Your task to perform on an android device: turn off javascript in the chrome app Image 0: 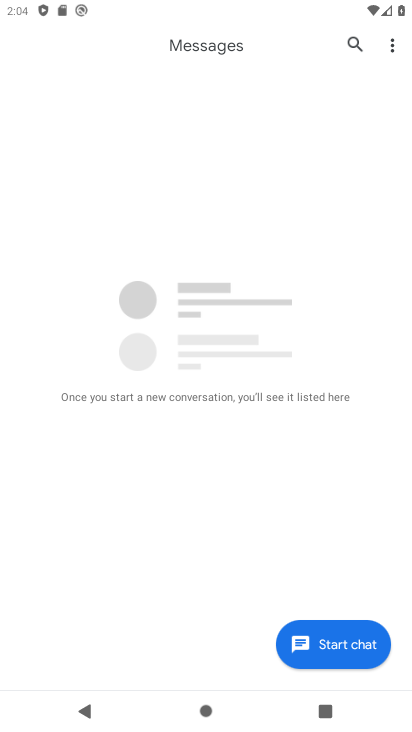
Step 0: press home button
Your task to perform on an android device: turn off javascript in the chrome app Image 1: 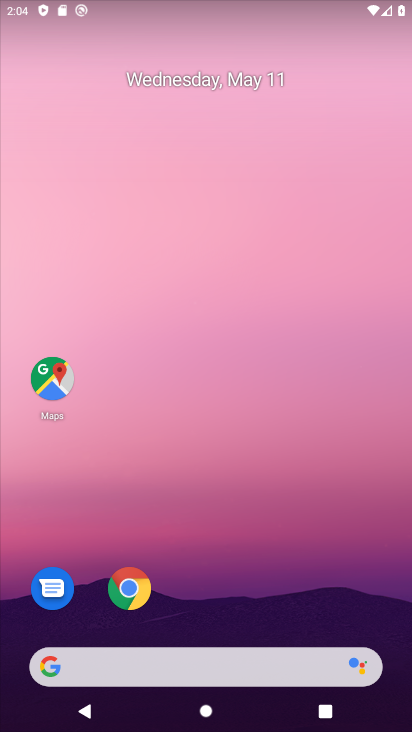
Step 1: click (122, 583)
Your task to perform on an android device: turn off javascript in the chrome app Image 2: 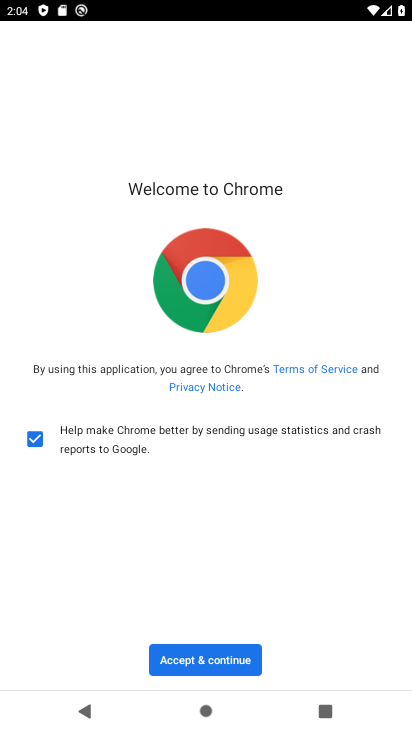
Step 2: click (164, 657)
Your task to perform on an android device: turn off javascript in the chrome app Image 3: 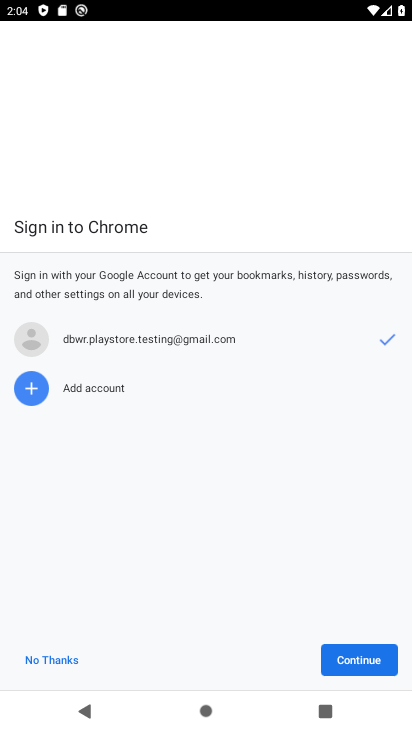
Step 3: click (164, 657)
Your task to perform on an android device: turn off javascript in the chrome app Image 4: 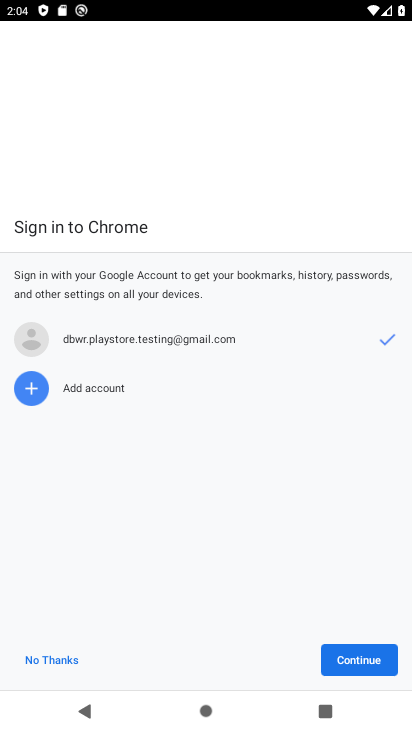
Step 4: click (334, 667)
Your task to perform on an android device: turn off javascript in the chrome app Image 5: 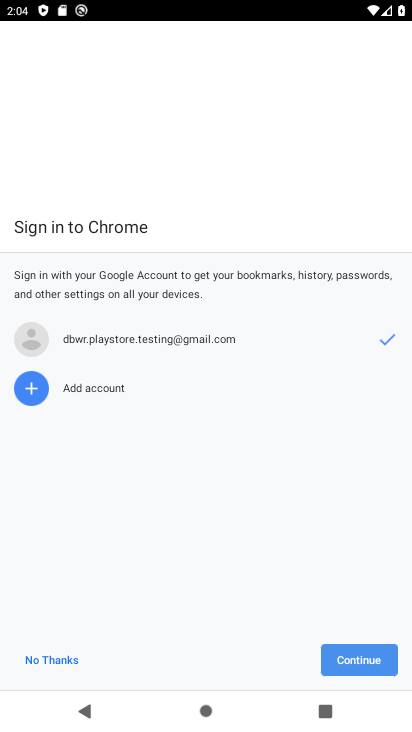
Step 5: click (334, 667)
Your task to perform on an android device: turn off javascript in the chrome app Image 6: 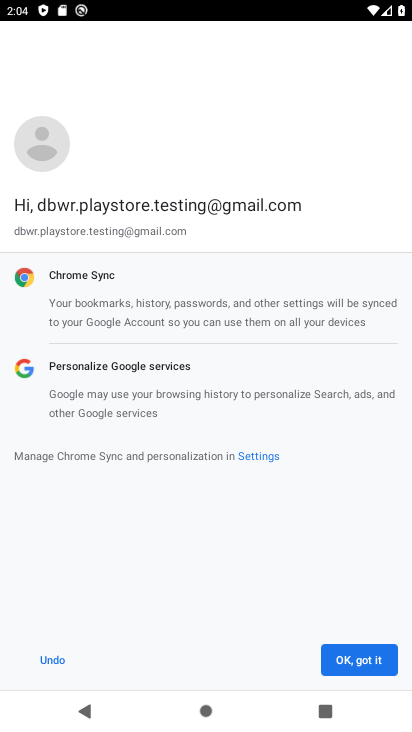
Step 6: click (334, 667)
Your task to perform on an android device: turn off javascript in the chrome app Image 7: 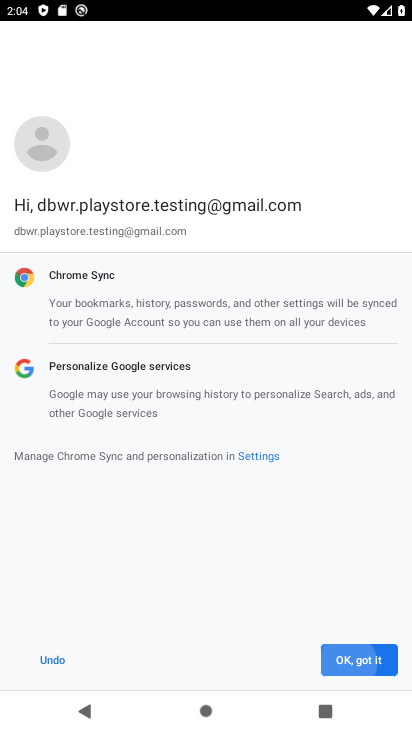
Step 7: click (335, 667)
Your task to perform on an android device: turn off javascript in the chrome app Image 8: 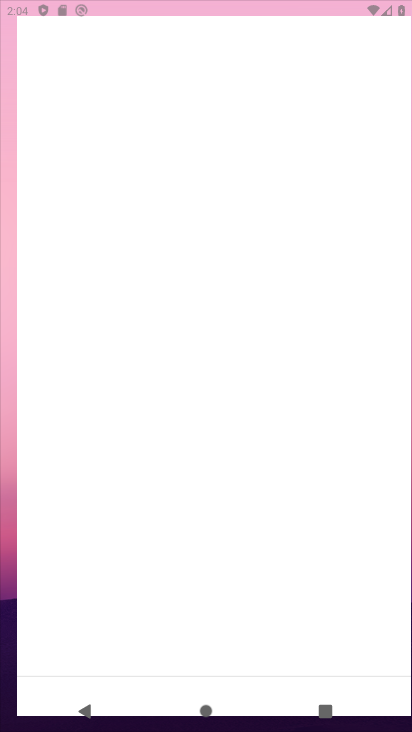
Step 8: click (343, 667)
Your task to perform on an android device: turn off javascript in the chrome app Image 9: 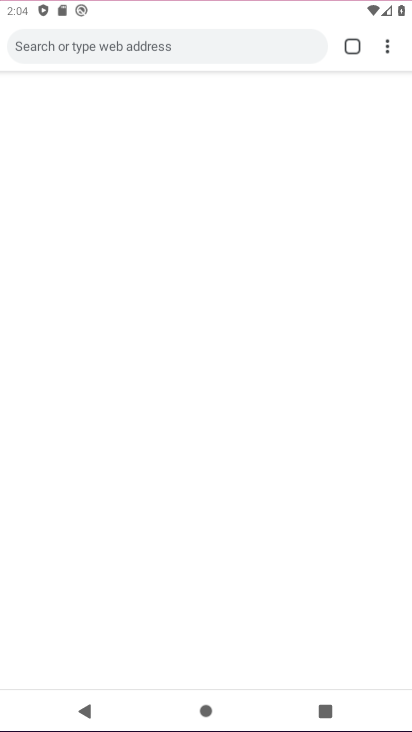
Step 9: click (343, 667)
Your task to perform on an android device: turn off javascript in the chrome app Image 10: 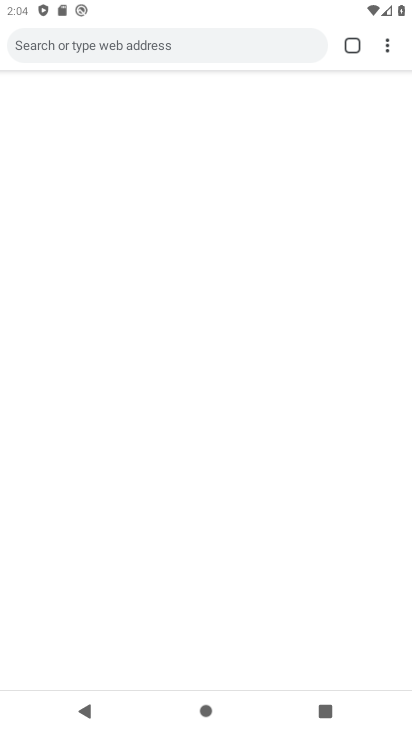
Step 10: click (343, 667)
Your task to perform on an android device: turn off javascript in the chrome app Image 11: 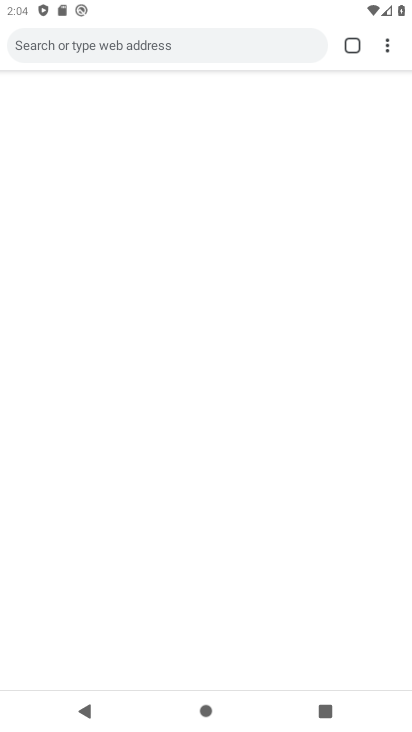
Step 11: click (343, 667)
Your task to perform on an android device: turn off javascript in the chrome app Image 12: 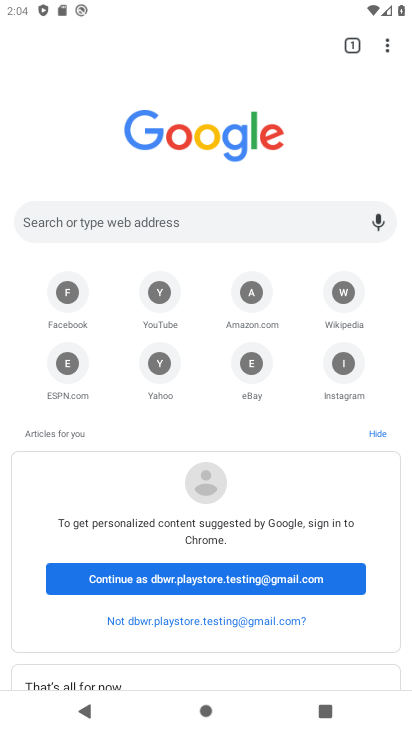
Step 12: click (343, 667)
Your task to perform on an android device: turn off javascript in the chrome app Image 13: 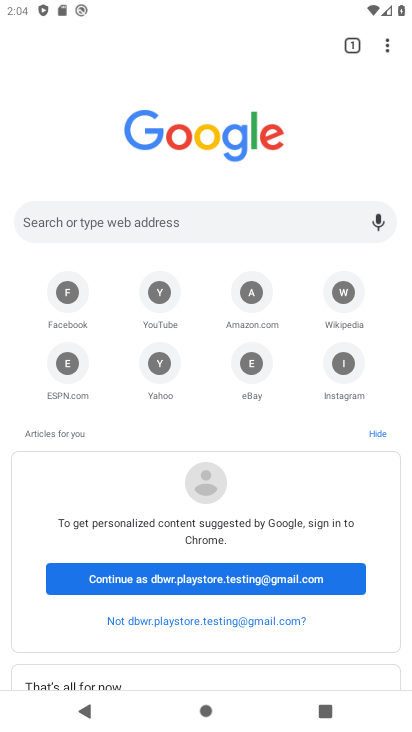
Step 13: click (343, 667)
Your task to perform on an android device: turn off javascript in the chrome app Image 14: 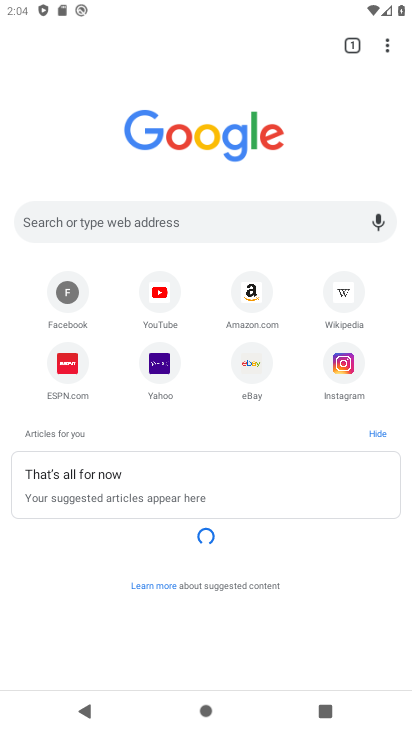
Step 14: drag from (391, 44) to (256, 390)
Your task to perform on an android device: turn off javascript in the chrome app Image 15: 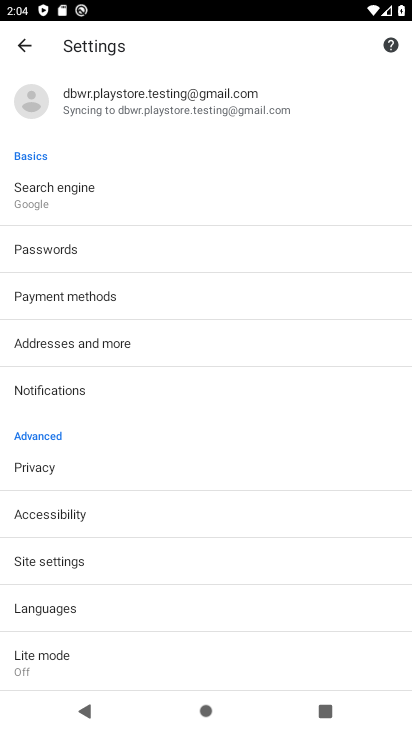
Step 15: click (91, 557)
Your task to perform on an android device: turn off javascript in the chrome app Image 16: 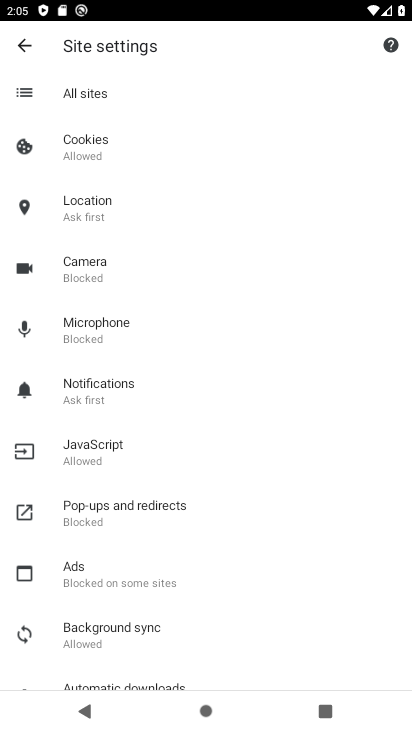
Step 16: drag from (200, 606) to (190, 239)
Your task to perform on an android device: turn off javascript in the chrome app Image 17: 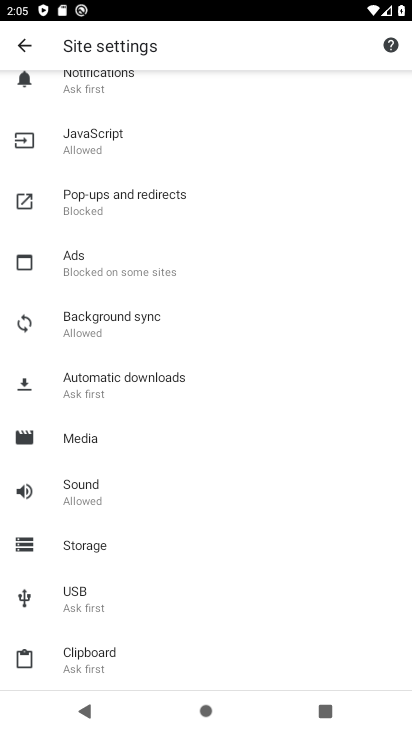
Step 17: click (92, 110)
Your task to perform on an android device: turn off javascript in the chrome app Image 18: 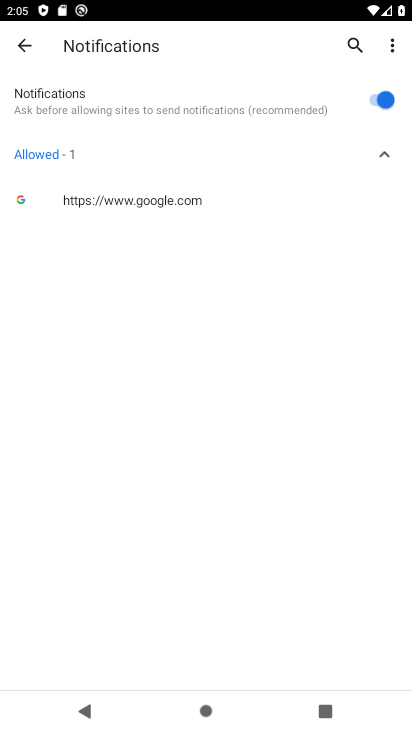
Step 18: drag from (118, 476) to (120, 284)
Your task to perform on an android device: turn off javascript in the chrome app Image 19: 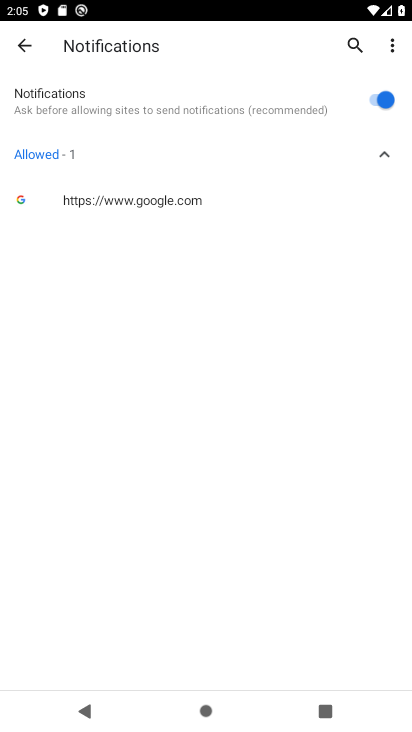
Step 19: click (15, 59)
Your task to perform on an android device: turn off javascript in the chrome app Image 20: 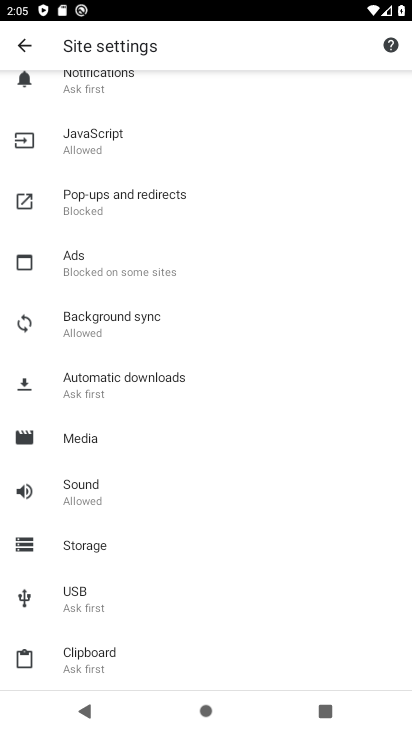
Step 20: click (95, 140)
Your task to perform on an android device: turn off javascript in the chrome app Image 21: 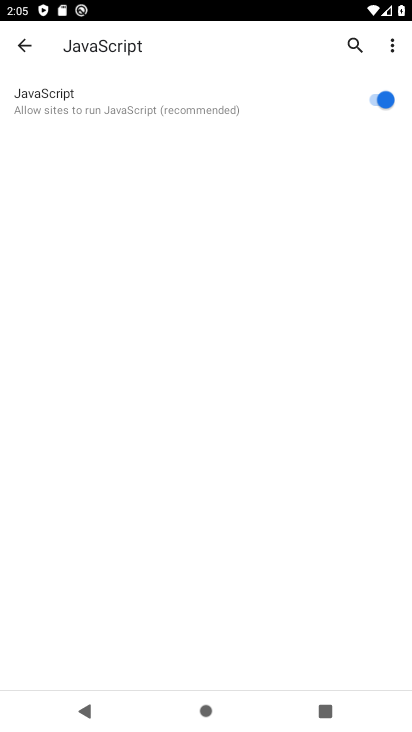
Step 21: click (391, 92)
Your task to perform on an android device: turn off javascript in the chrome app Image 22: 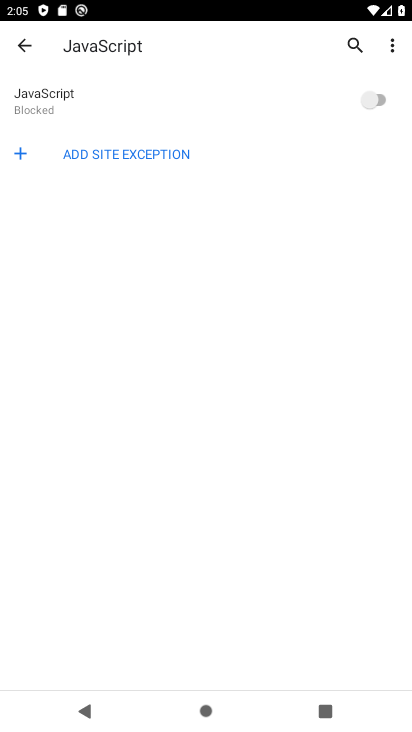
Step 22: task complete